Your task to perform on an android device: turn on wifi Image 0: 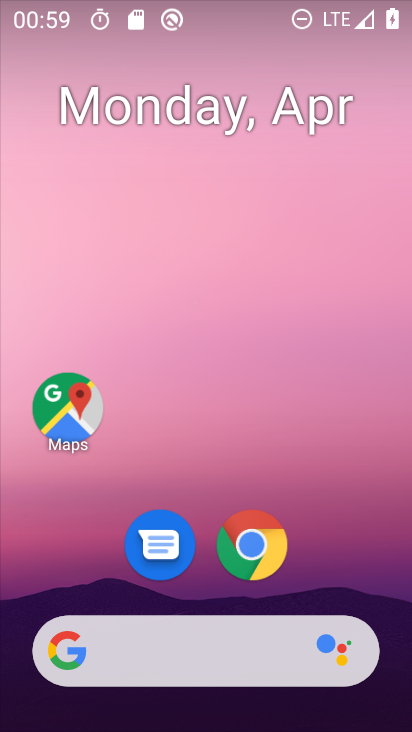
Step 0: click (324, 233)
Your task to perform on an android device: turn on wifi Image 1: 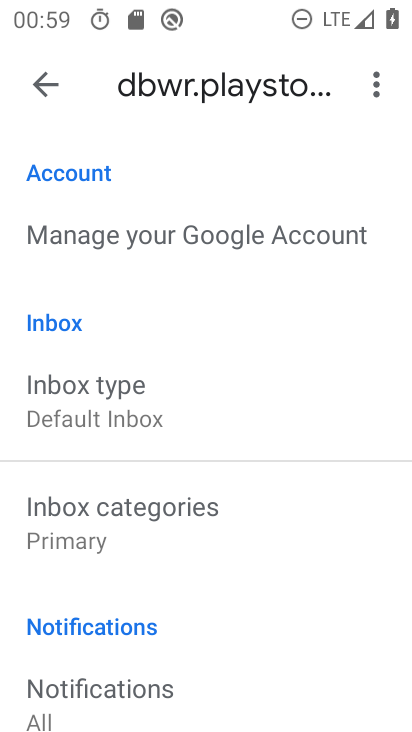
Step 1: press home button
Your task to perform on an android device: turn on wifi Image 2: 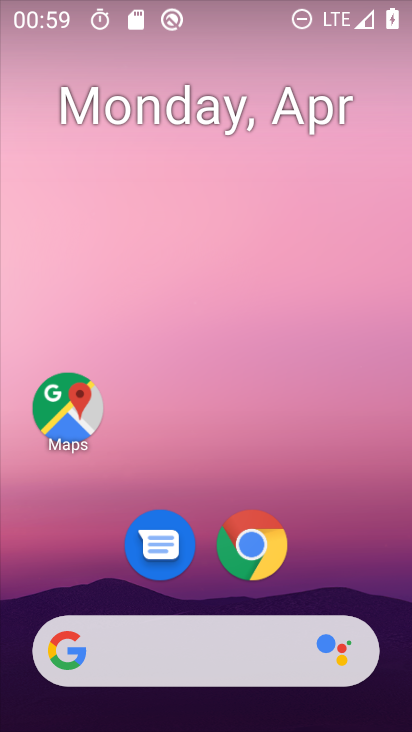
Step 2: drag from (339, 551) to (355, 266)
Your task to perform on an android device: turn on wifi Image 3: 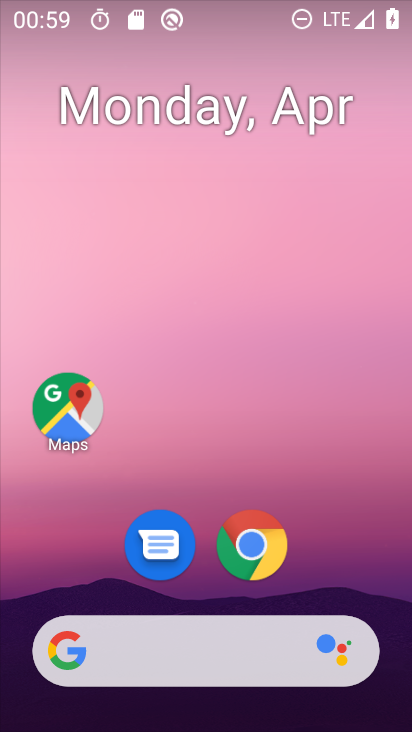
Step 3: drag from (314, 522) to (286, 155)
Your task to perform on an android device: turn on wifi Image 4: 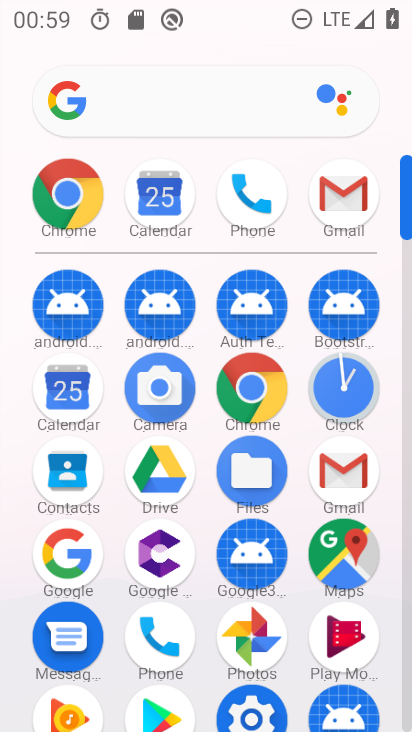
Step 4: click (251, 707)
Your task to perform on an android device: turn on wifi Image 5: 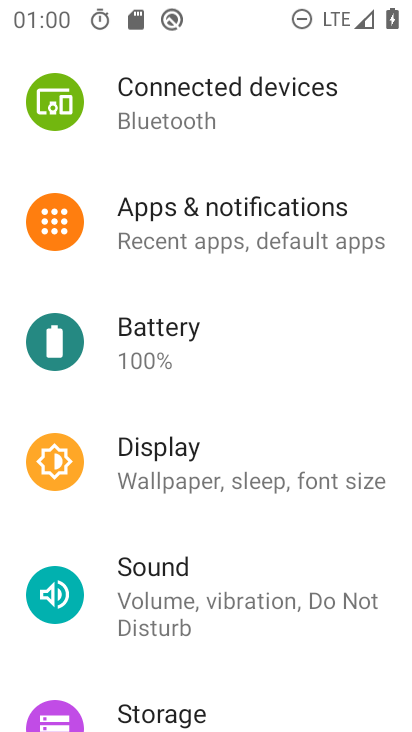
Step 5: drag from (257, 94) to (238, 551)
Your task to perform on an android device: turn on wifi Image 6: 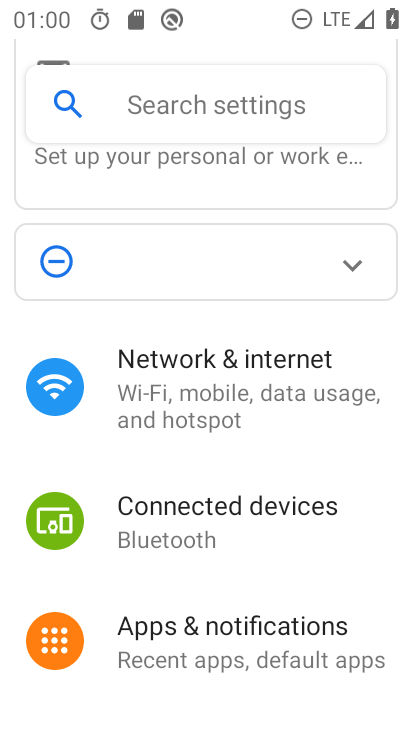
Step 6: click (186, 385)
Your task to perform on an android device: turn on wifi Image 7: 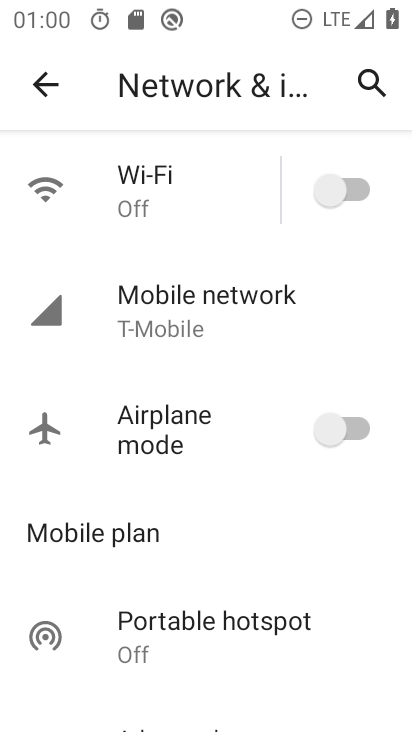
Step 7: click (341, 184)
Your task to perform on an android device: turn on wifi Image 8: 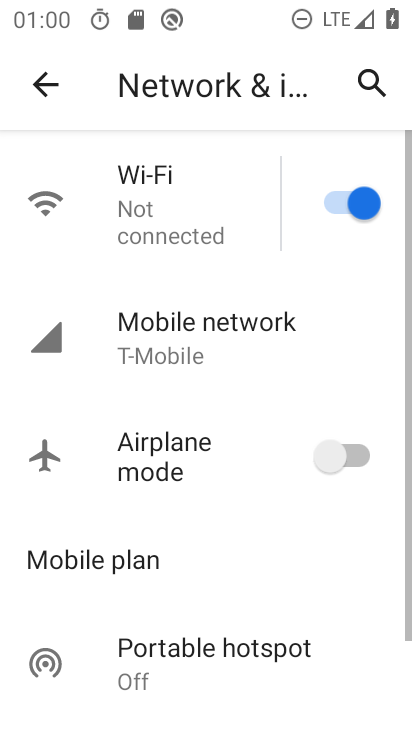
Step 8: task complete